Your task to perform on an android device: move a message to another label in the gmail app Image 0: 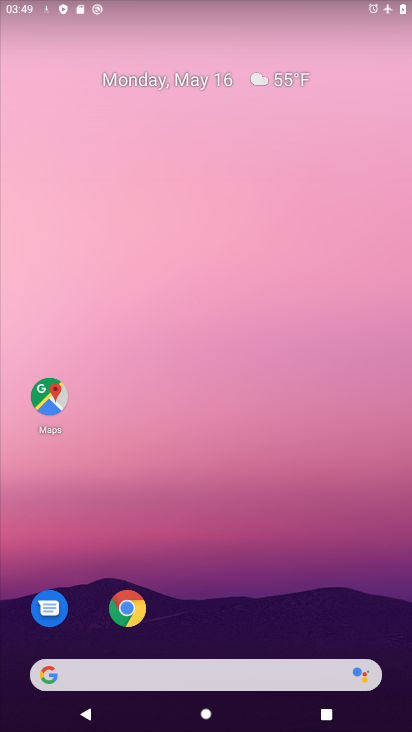
Step 0: drag from (222, 637) to (225, 293)
Your task to perform on an android device: move a message to another label in the gmail app Image 1: 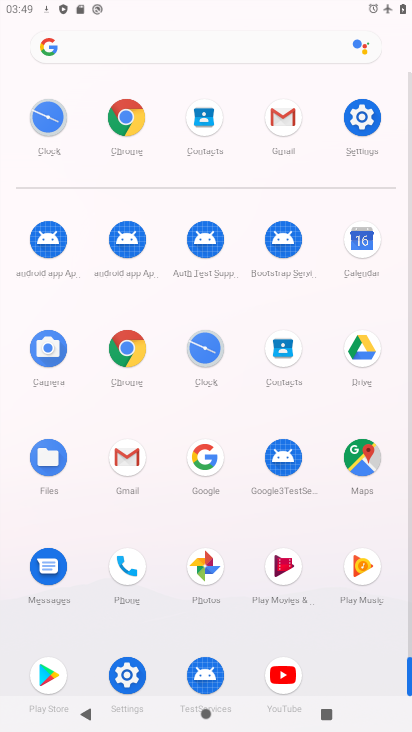
Step 1: click (286, 133)
Your task to perform on an android device: move a message to another label in the gmail app Image 2: 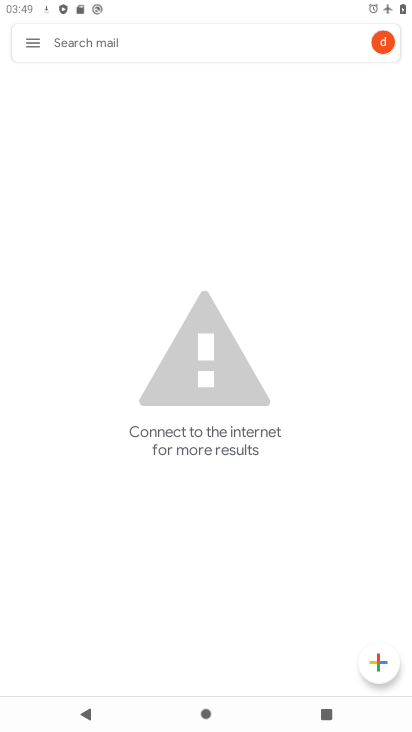
Step 2: click (41, 35)
Your task to perform on an android device: move a message to another label in the gmail app Image 3: 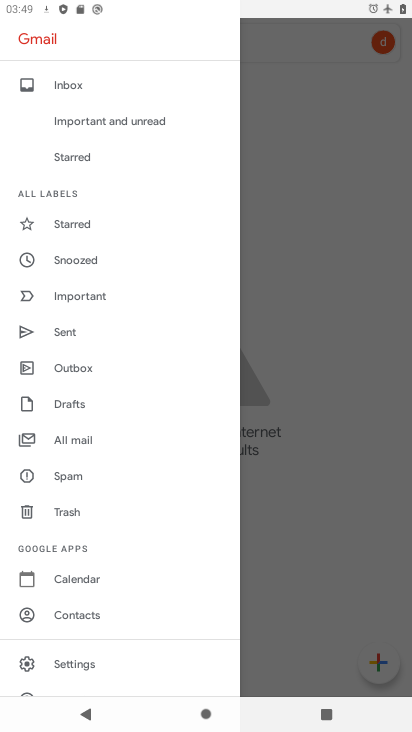
Step 3: click (98, 433)
Your task to perform on an android device: move a message to another label in the gmail app Image 4: 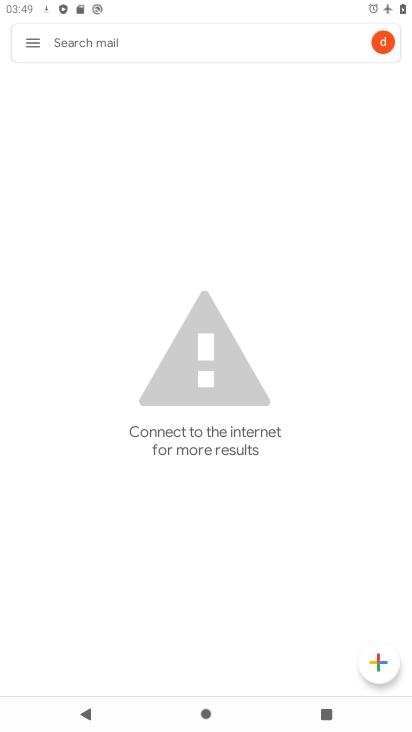
Step 4: task complete